Your task to perform on an android device: Show me productivity apps on the Play Store Image 0: 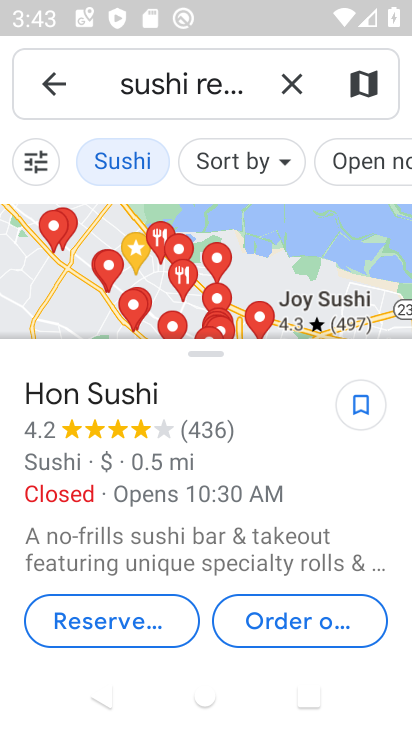
Step 0: press home button
Your task to perform on an android device: Show me productivity apps on the Play Store Image 1: 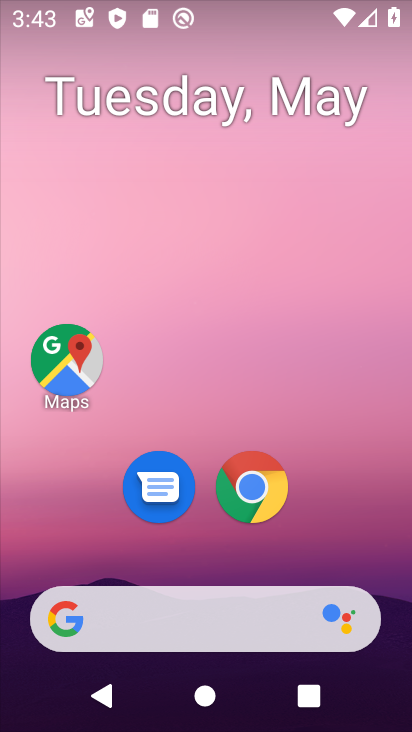
Step 1: drag from (191, 554) to (286, 88)
Your task to perform on an android device: Show me productivity apps on the Play Store Image 2: 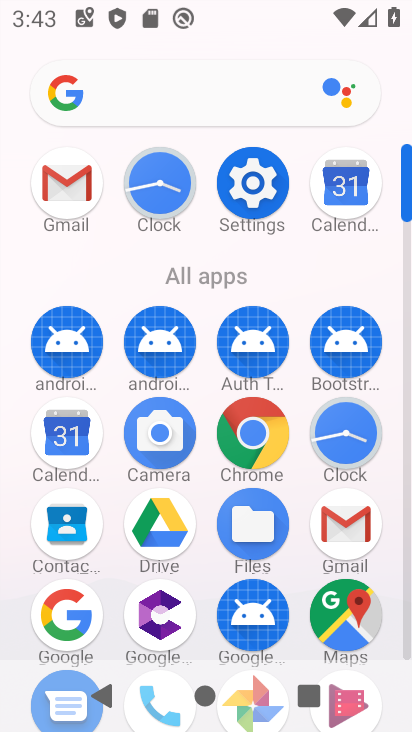
Step 2: drag from (224, 616) to (260, 199)
Your task to perform on an android device: Show me productivity apps on the Play Store Image 3: 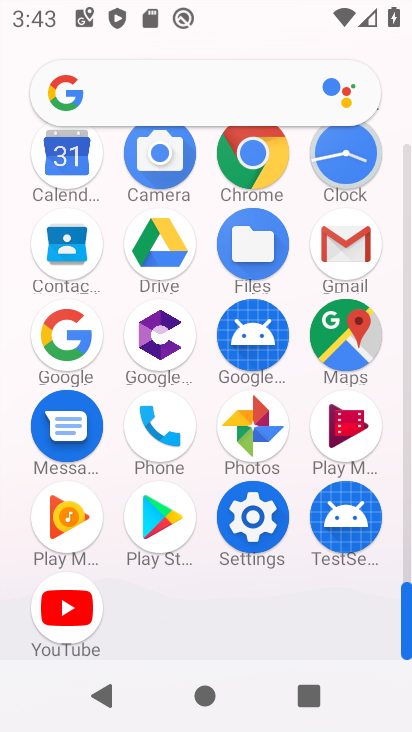
Step 3: click (157, 529)
Your task to perform on an android device: Show me productivity apps on the Play Store Image 4: 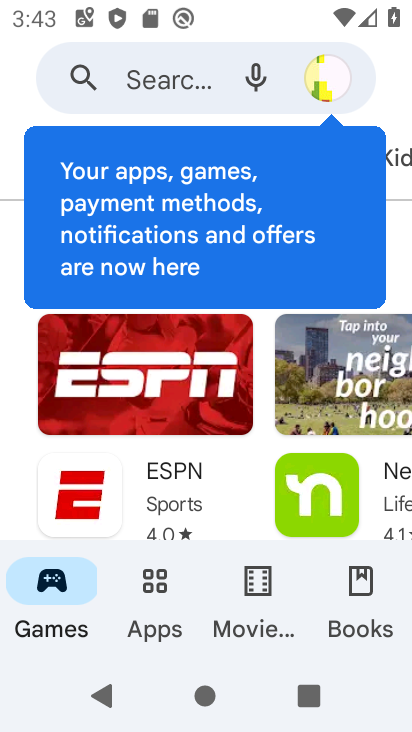
Step 4: click (155, 600)
Your task to perform on an android device: Show me productivity apps on the Play Store Image 5: 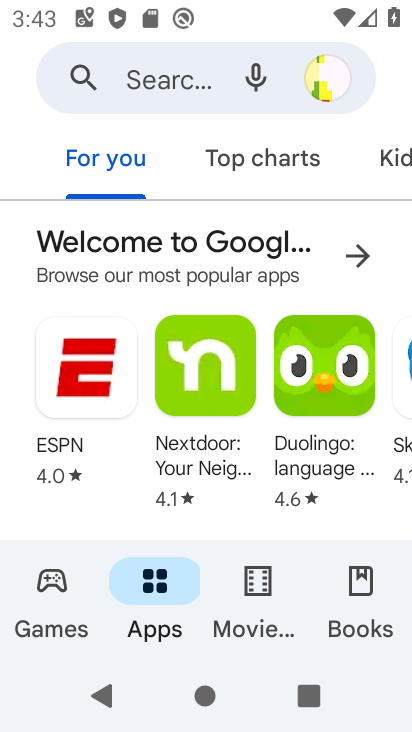
Step 5: drag from (386, 159) to (75, 146)
Your task to perform on an android device: Show me productivity apps on the Play Store Image 6: 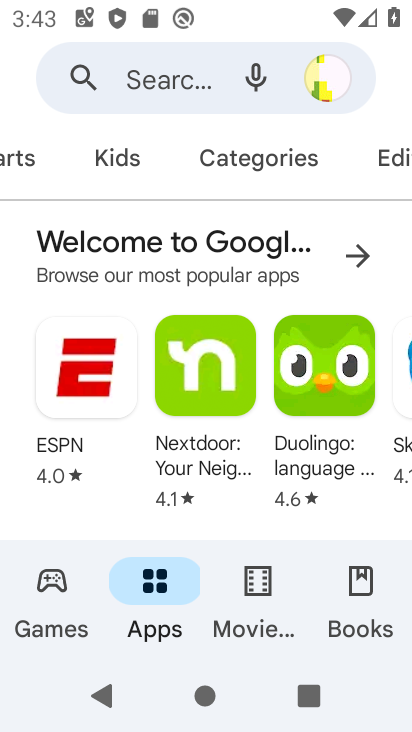
Step 6: click (286, 169)
Your task to perform on an android device: Show me productivity apps on the Play Store Image 7: 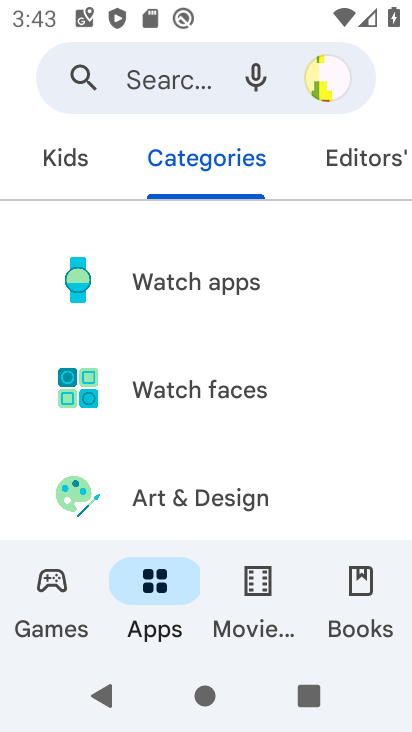
Step 7: drag from (215, 428) to (235, 175)
Your task to perform on an android device: Show me productivity apps on the Play Store Image 8: 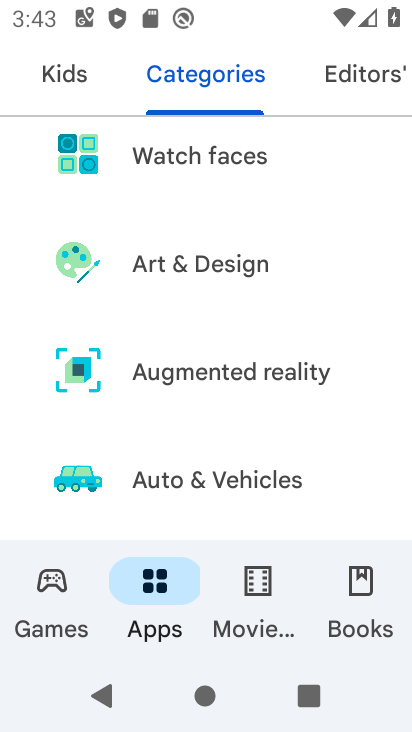
Step 8: drag from (225, 434) to (227, 133)
Your task to perform on an android device: Show me productivity apps on the Play Store Image 9: 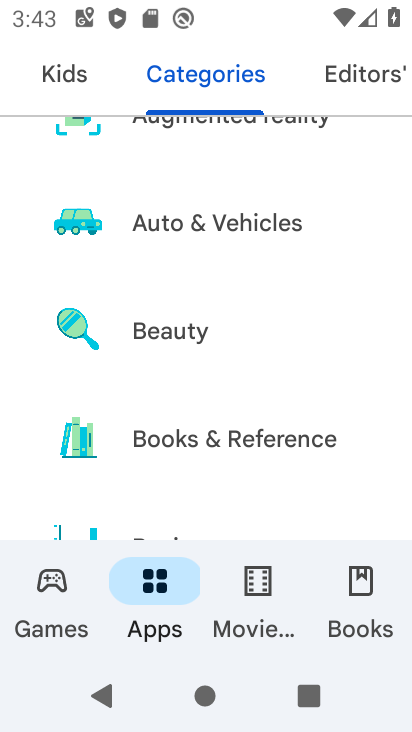
Step 9: drag from (207, 382) to (248, 1)
Your task to perform on an android device: Show me productivity apps on the Play Store Image 10: 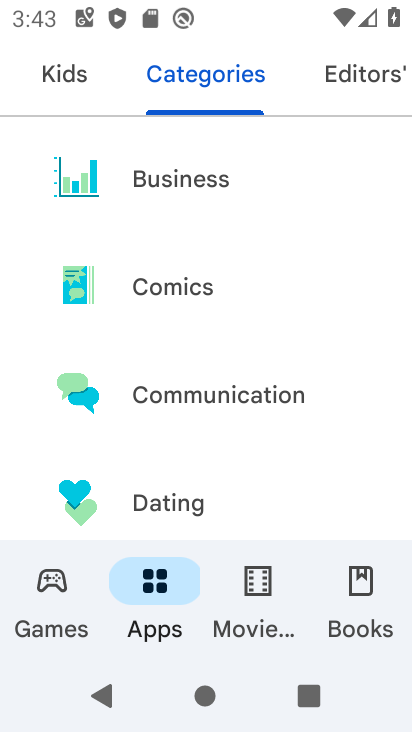
Step 10: drag from (209, 447) to (281, 69)
Your task to perform on an android device: Show me productivity apps on the Play Store Image 11: 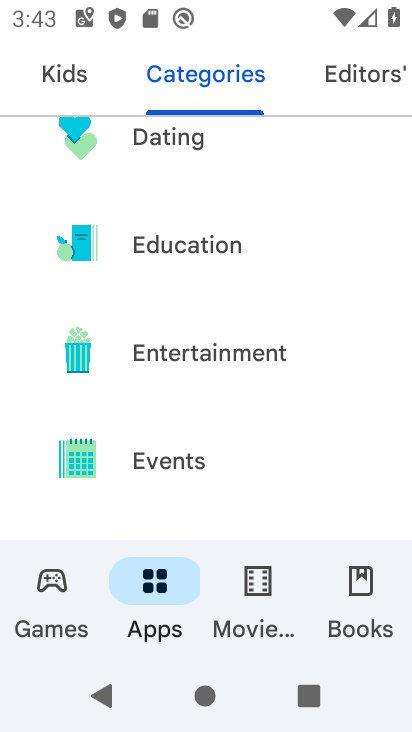
Step 11: drag from (211, 432) to (274, 79)
Your task to perform on an android device: Show me productivity apps on the Play Store Image 12: 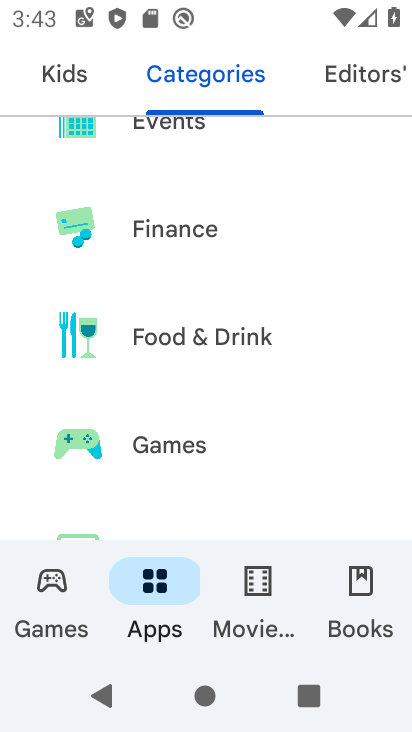
Step 12: drag from (197, 443) to (323, 14)
Your task to perform on an android device: Show me productivity apps on the Play Store Image 13: 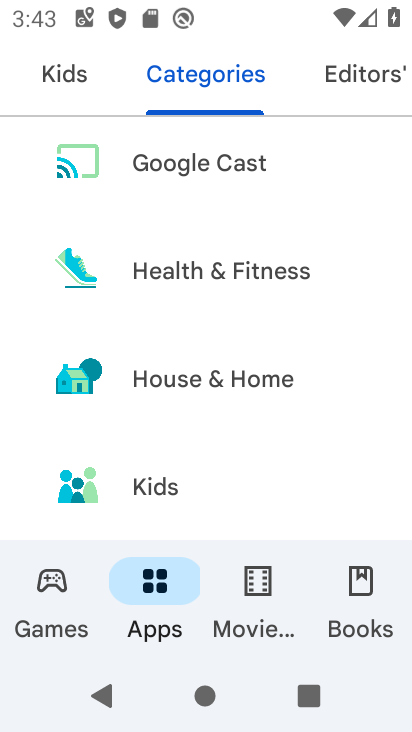
Step 13: drag from (221, 444) to (247, 1)
Your task to perform on an android device: Show me productivity apps on the Play Store Image 14: 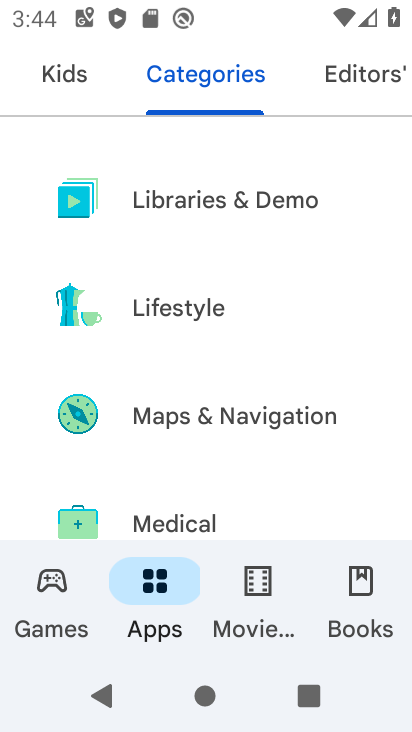
Step 14: drag from (207, 464) to (269, 48)
Your task to perform on an android device: Show me productivity apps on the Play Store Image 15: 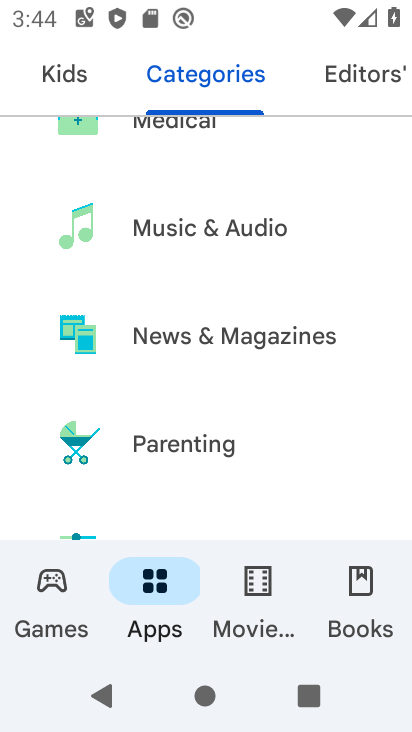
Step 15: drag from (236, 444) to (288, 157)
Your task to perform on an android device: Show me productivity apps on the Play Store Image 16: 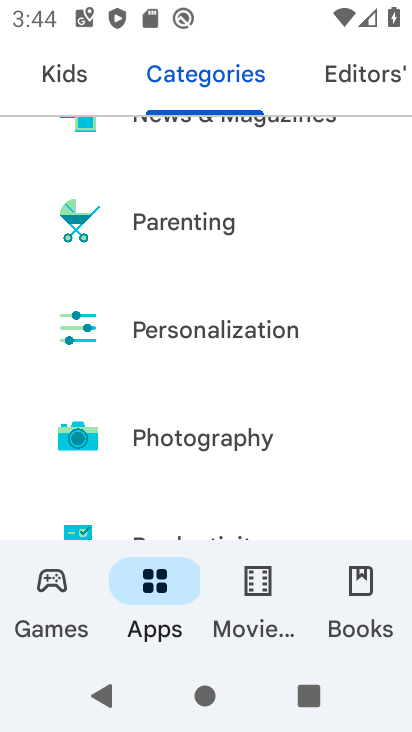
Step 16: drag from (265, 444) to (330, 131)
Your task to perform on an android device: Show me productivity apps on the Play Store Image 17: 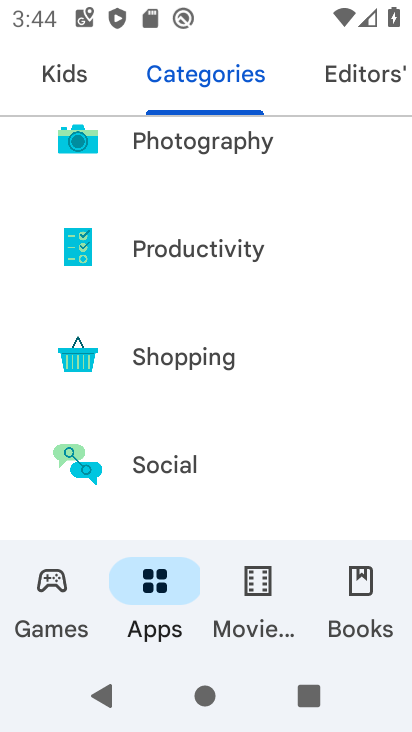
Step 17: click (228, 248)
Your task to perform on an android device: Show me productivity apps on the Play Store Image 18: 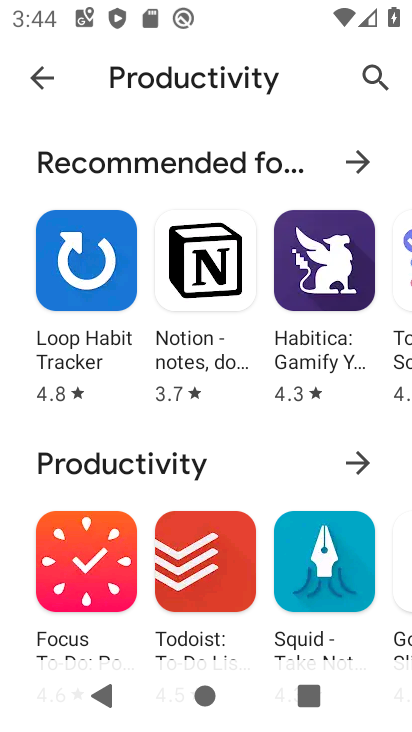
Step 18: task complete